Your task to perform on an android device: Go to privacy settings Image 0: 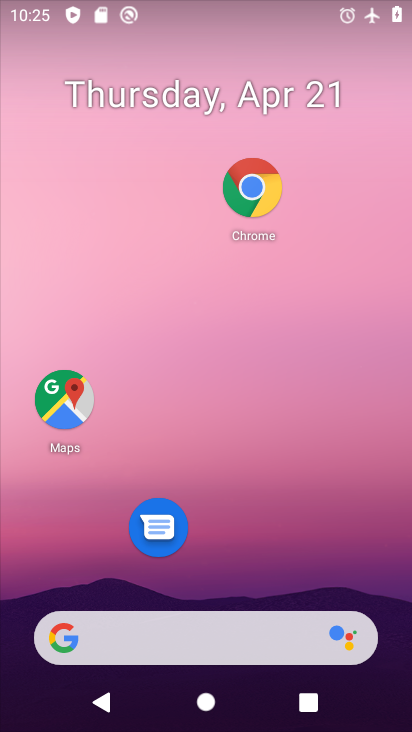
Step 0: drag from (240, 618) to (299, 150)
Your task to perform on an android device: Go to privacy settings Image 1: 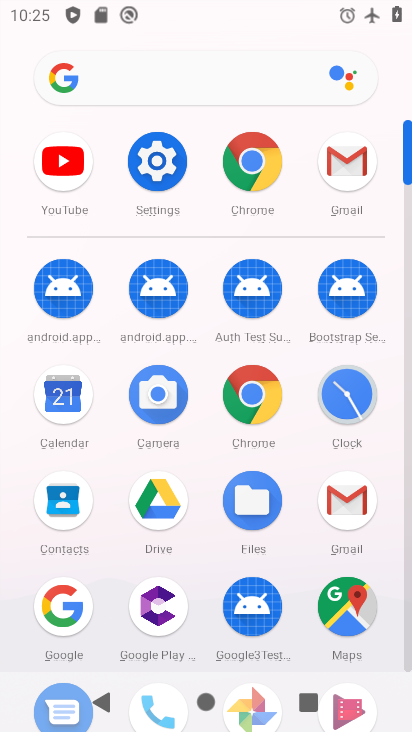
Step 1: click (165, 166)
Your task to perform on an android device: Go to privacy settings Image 2: 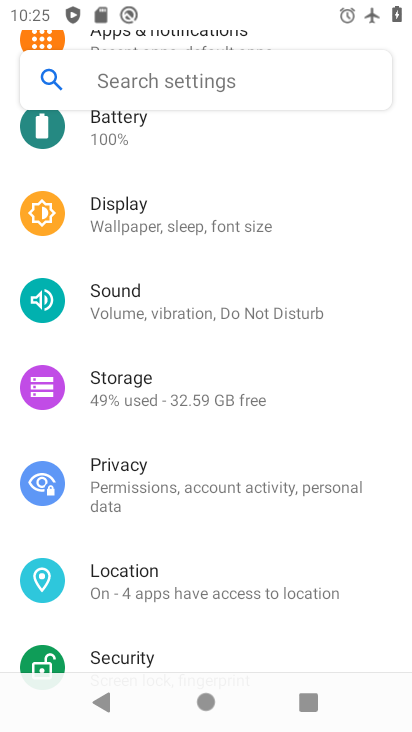
Step 2: click (232, 507)
Your task to perform on an android device: Go to privacy settings Image 3: 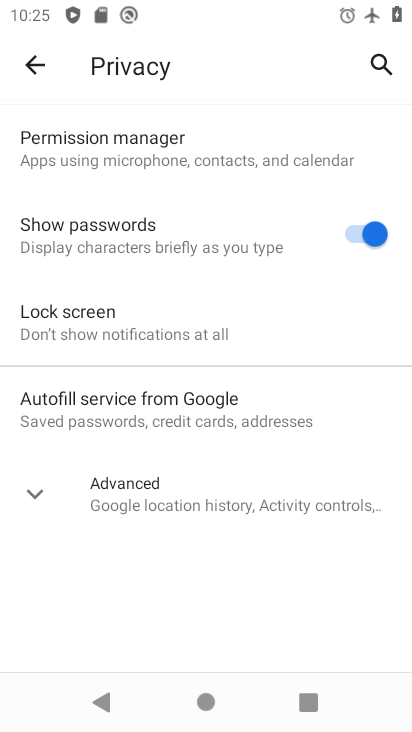
Step 3: task complete